Your task to perform on an android device: snooze an email in the gmail app Image 0: 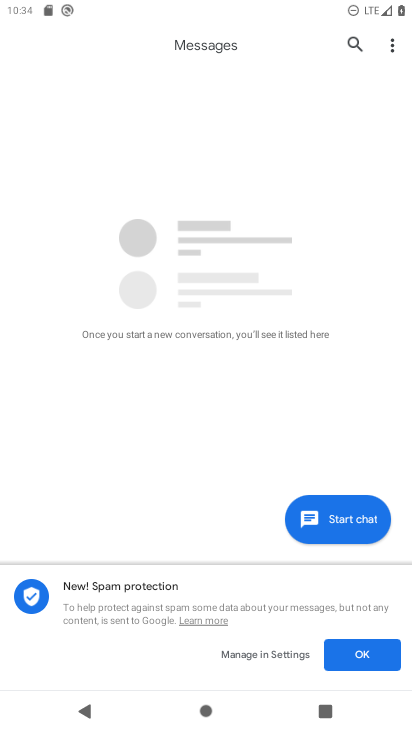
Step 0: press home button
Your task to perform on an android device: snooze an email in the gmail app Image 1: 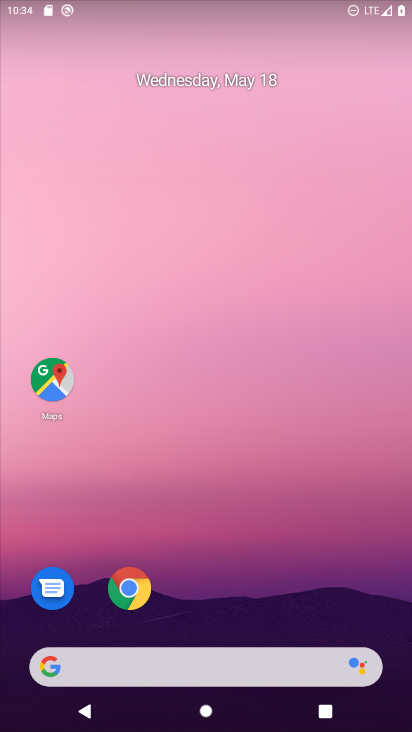
Step 1: drag from (251, 616) to (254, 10)
Your task to perform on an android device: snooze an email in the gmail app Image 2: 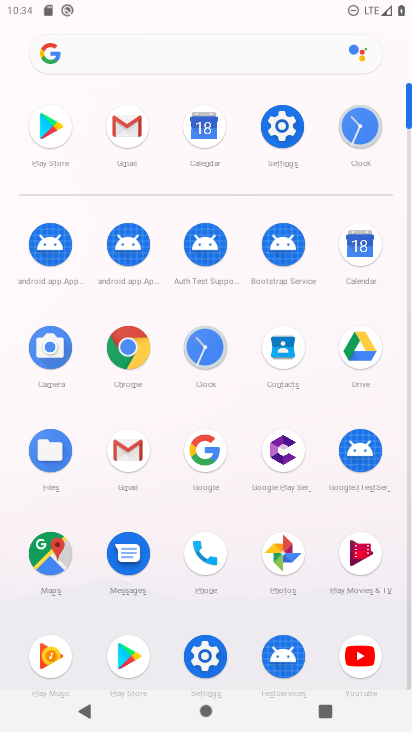
Step 2: click (124, 133)
Your task to perform on an android device: snooze an email in the gmail app Image 3: 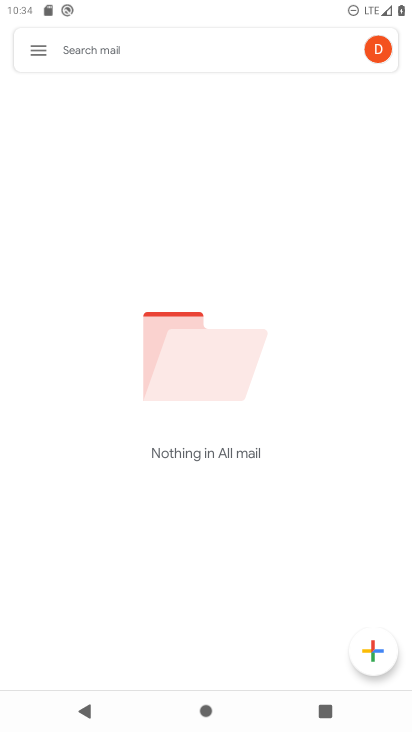
Step 3: task complete